Your task to perform on an android device: turn pop-ups on in chrome Image 0: 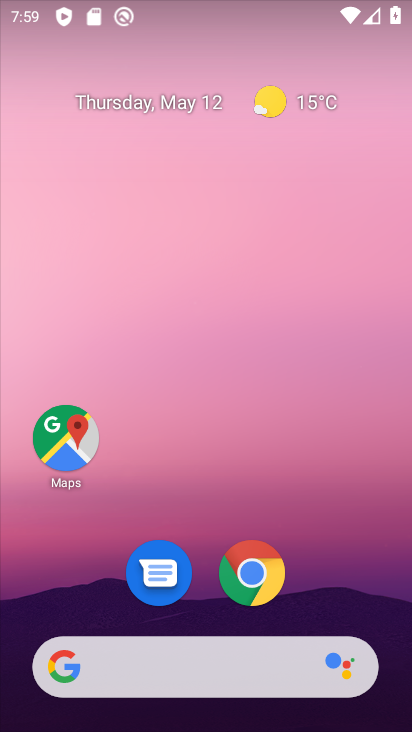
Step 0: click (254, 554)
Your task to perform on an android device: turn pop-ups on in chrome Image 1: 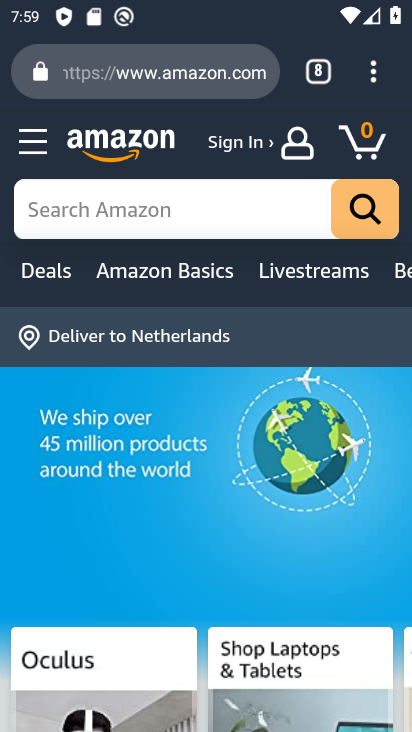
Step 1: click (373, 68)
Your task to perform on an android device: turn pop-ups on in chrome Image 2: 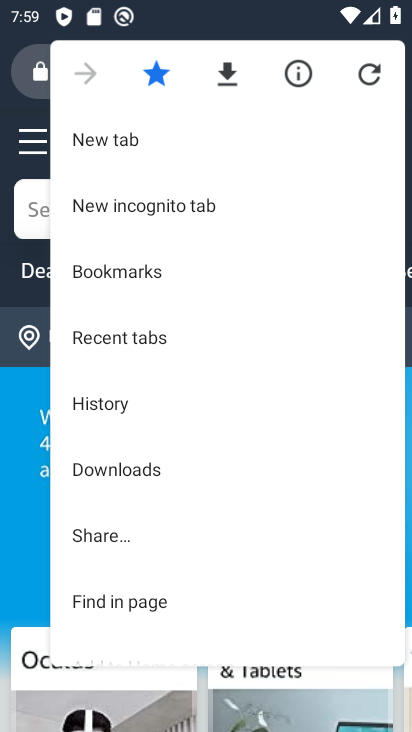
Step 2: drag from (197, 514) to (92, 178)
Your task to perform on an android device: turn pop-ups on in chrome Image 3: 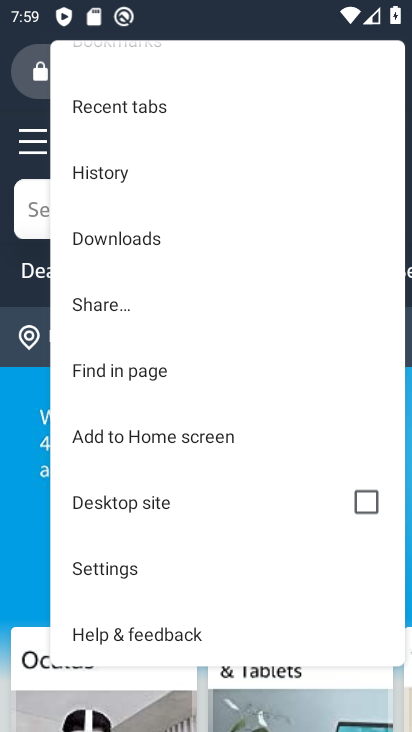
Step 3: click (120, 563)
Your task to perform on an android device: turn pop-ups on in chrome Image 4: 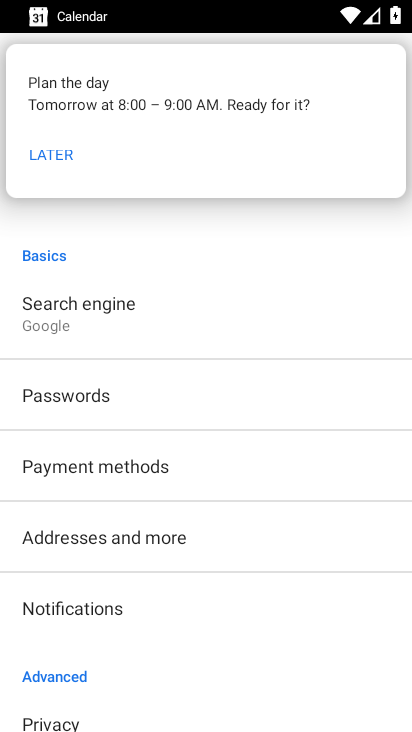
Step 4: drag from (223, 549) to (152, 254)
Your task to perform on an android device: turn pop-ups on in chrome Image 5: 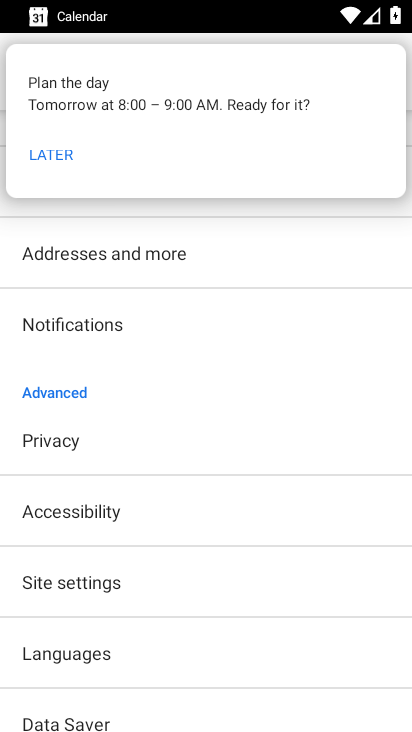
Step 5: click (98, 591)
Your task to perform on an android device: turn pop-ups on in chrome Image 6: 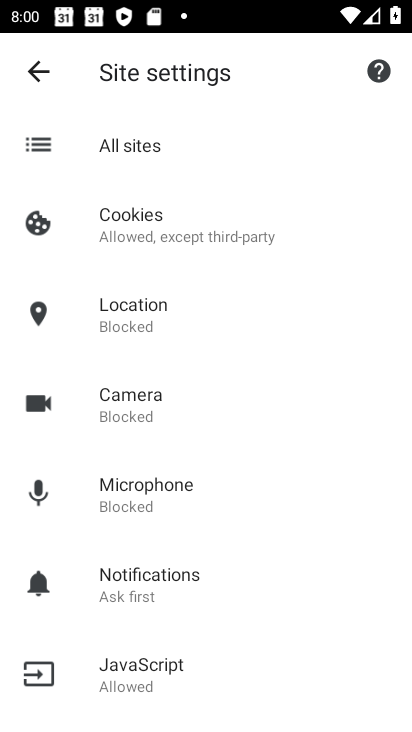
Step 6: drag from (215, 620) to (150, 328)
Your task to perform on an android device: turn pop-ups on in chrome Image 7: 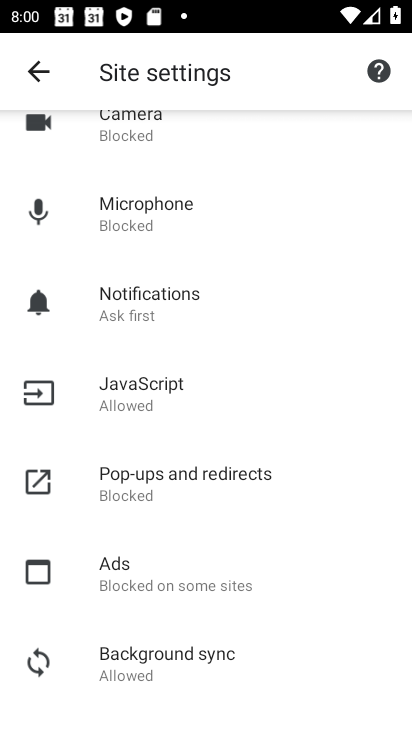
Step 7: click (142, 479)
Your task to perform on an android device: turn pop-ups on in chrome Image 8: 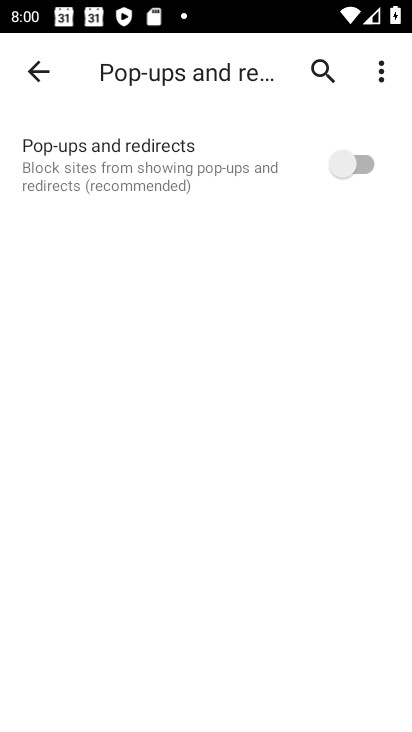
Step 8: click (337, 169)
Your task to perform on an android device: turn pop-ups on in chrome Image 9: 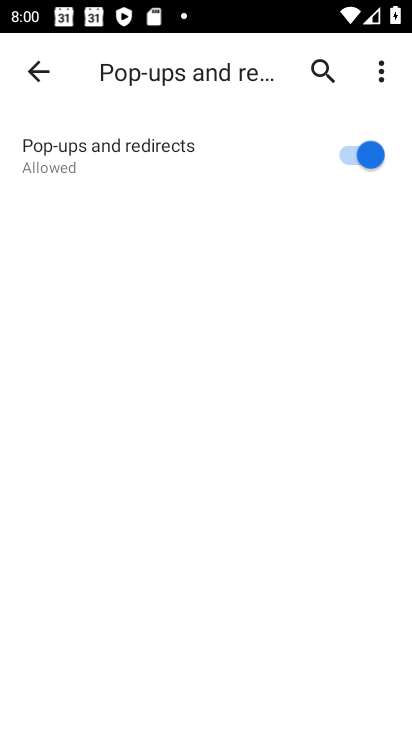
Step 9: task complete